Your task to perform on an android device: Toggle the flashlight Image 0: 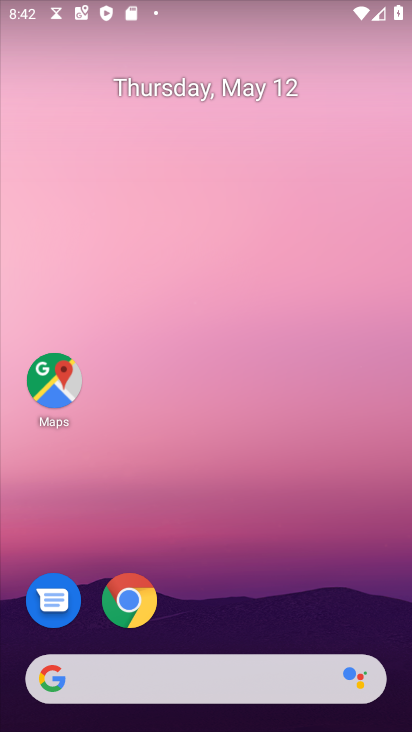
Step 0: drag from (287, 602) to (255, 133)
Your task to perform on an android device: Toggle the flashlight Image 1: 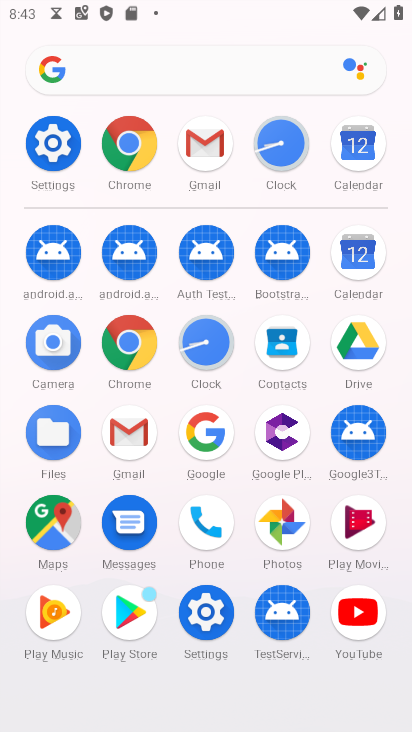
Step 1: click (213, 618)
Your task to perform on an android device: Toggle the flashlight Image 2: 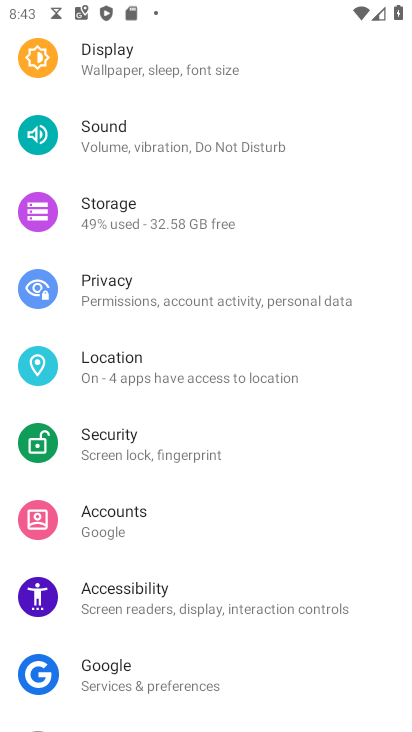
Step 2: task complete